Your task to perform on an android device: add a contact in the contacts app Image 0: 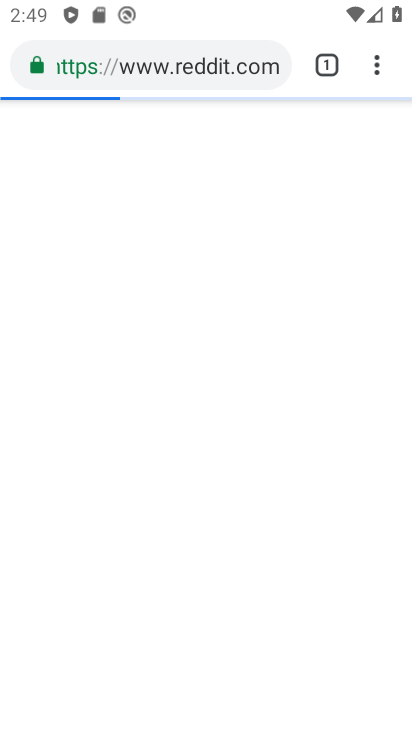
Step 0: press home button
Your task to perform on an android device: add a contact in the contacts app Image 1: 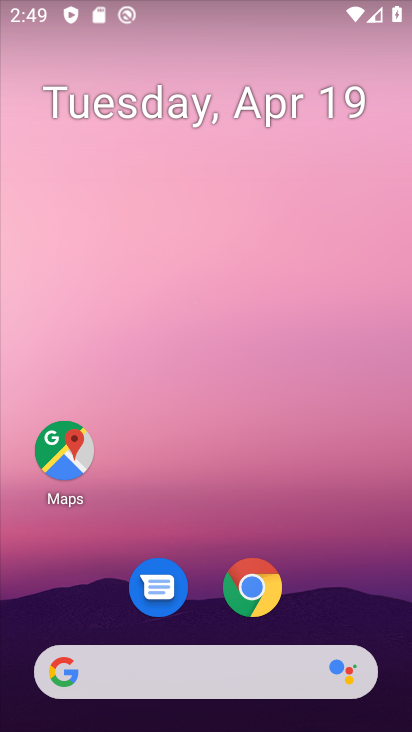
Step 1: drag from (383, 622) to (181, 82)
Your task to perform on an android device: add a contact in the contacts app Image 2: 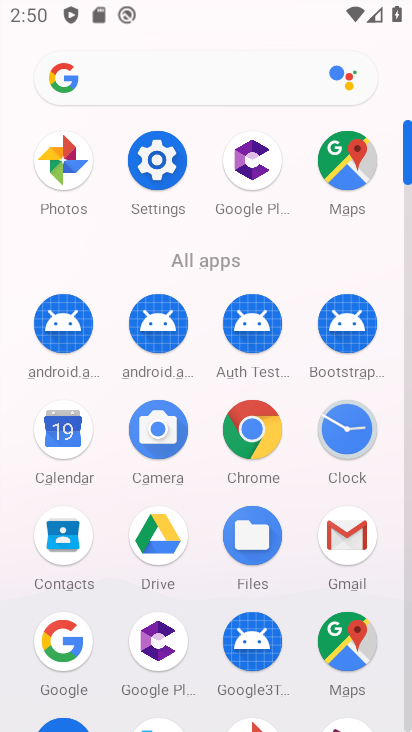
Step 2: click (60, 540)
Your task to perform on an android device: add a contact in the contacts app Image 3: 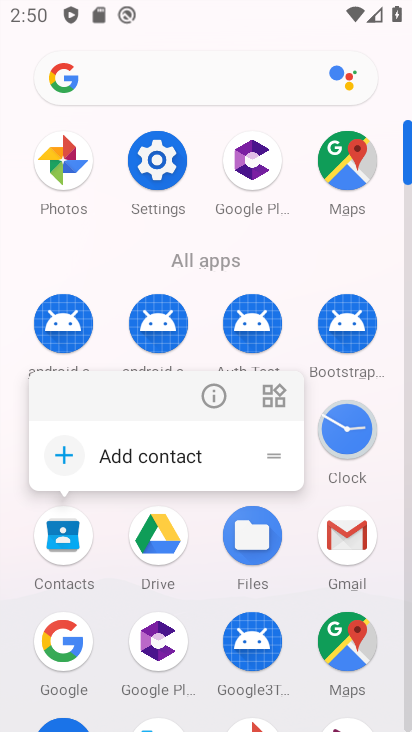
Step 3: click (67, 547)
Your task to perform on an android device: add a contact in the contacts app Image 4: 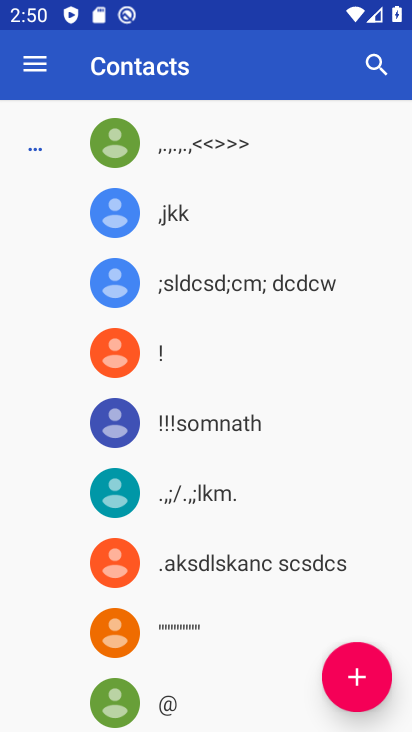
Step 4: click (369, 672)
Your task to perform on an android device: add a contact in the contacts app Image 5: 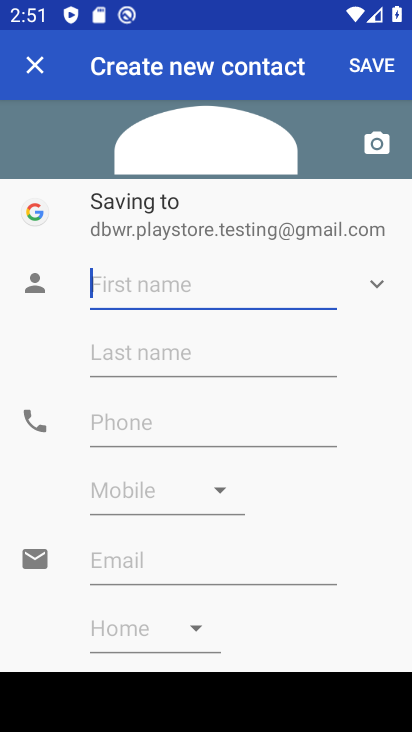
Step 5: type "kapil"
Your task to perform on an android device: add a contact in the contacts app Image 6: 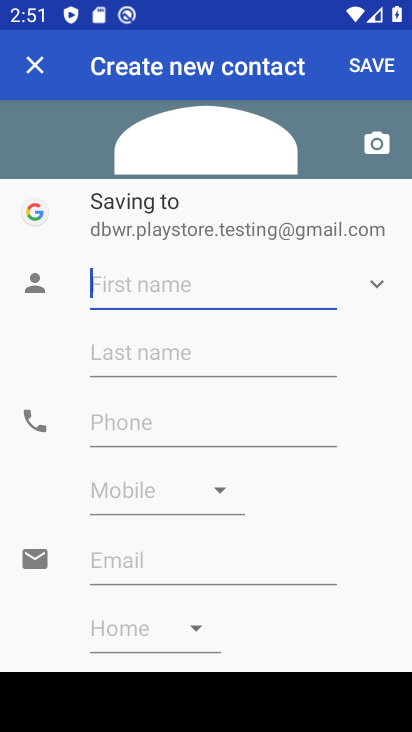
Step 6: click (378, 72)
Your task to perform on an android device: add a contact in the contacts app Image 7: 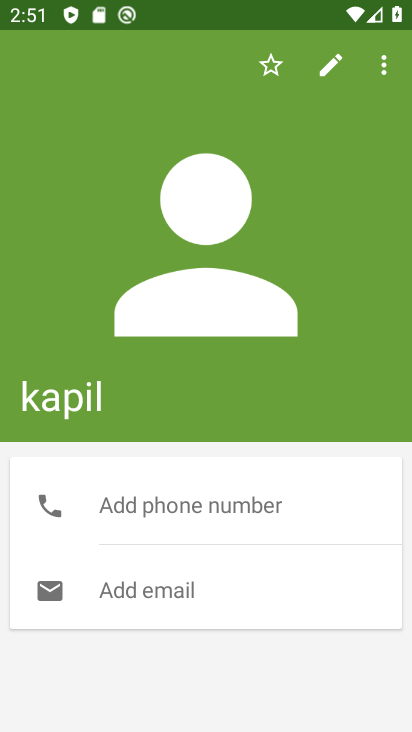
Step 7: task complete